Your task to perform on an android device: Go to wifi settings Image 0: 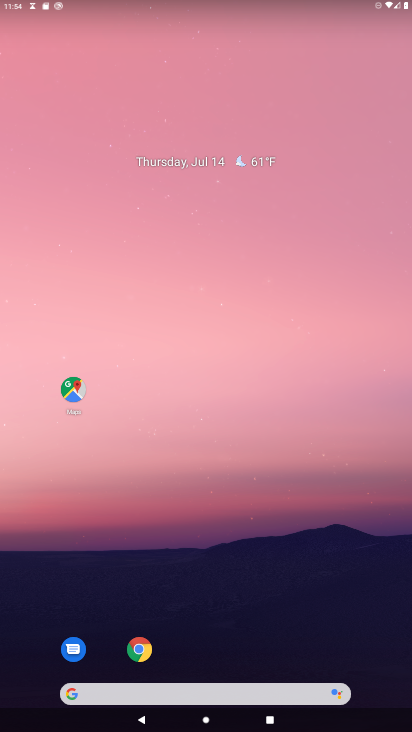
Step 0: drag from (246, 647) to (239, 12)
Your task to perform on an android device: Go to wifi settings Image 1: 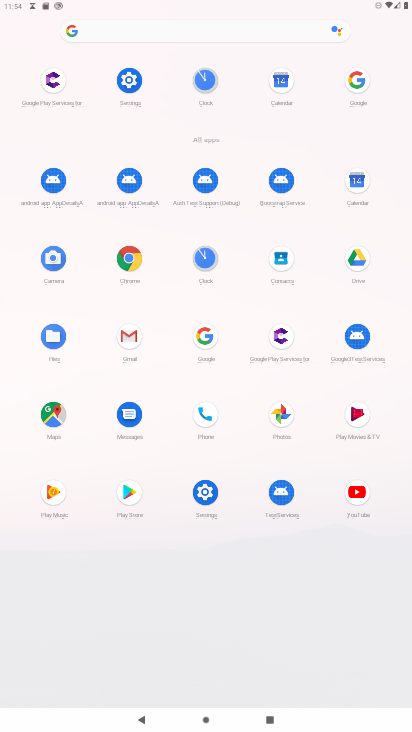
Step 1: click (127, 76)
Your task to perform on an android device: Go to wifi settings Image 2: 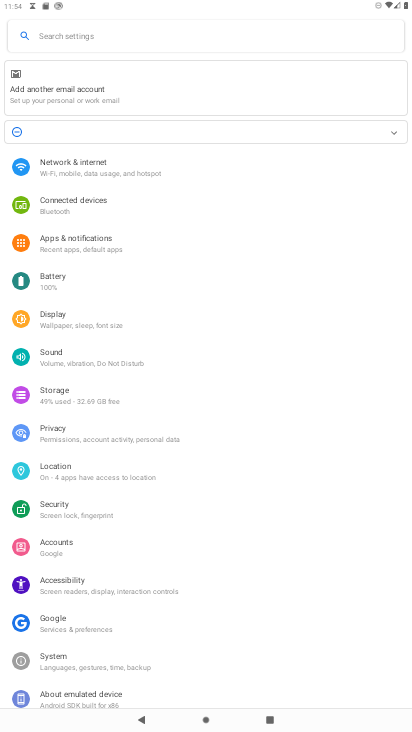
Step 2: click (83, 166)
Your task to perform on an android device: Go to wifi settings Image 3: 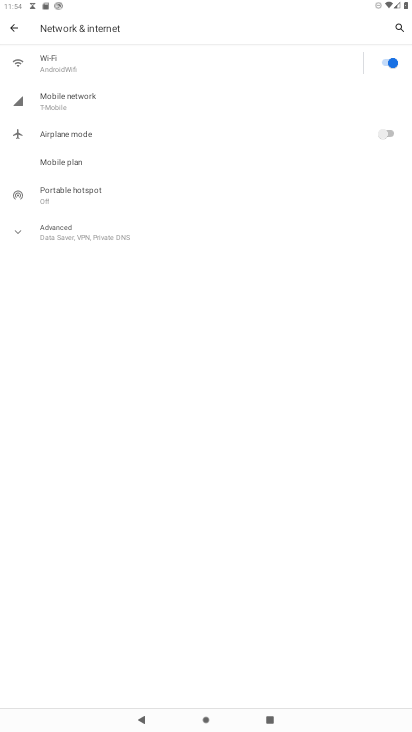
Step 3: click (40, 62)
Your task to perform on an android device: Go to wifi settings Image 4: 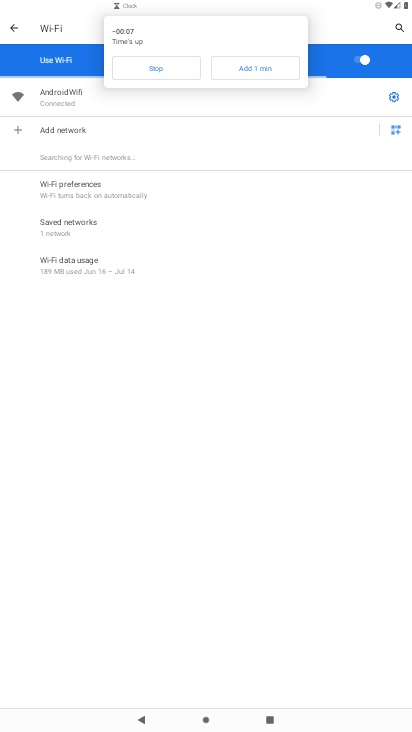
Step 4: click (393, 101)
Your task to perform on an android device: Go to wifi settings Image 5: 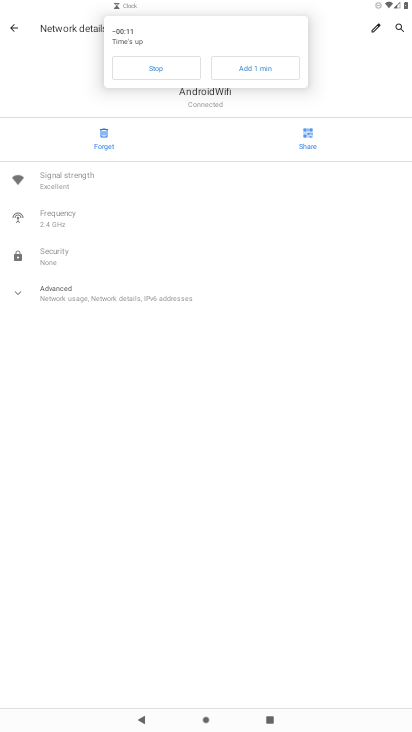
Step 5: click (172, 68)
Your task to perform on an android device: Go to wifi settings Image 6: 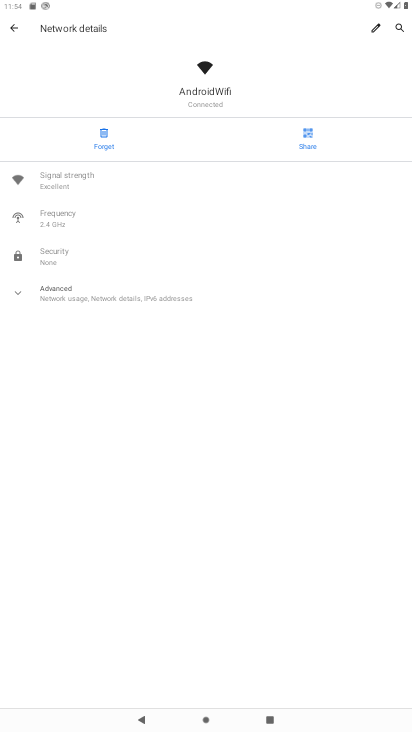
Step 6: task complete